Your task to perform on an android device: Search for vegetarian restaurants on Maps Image 0: 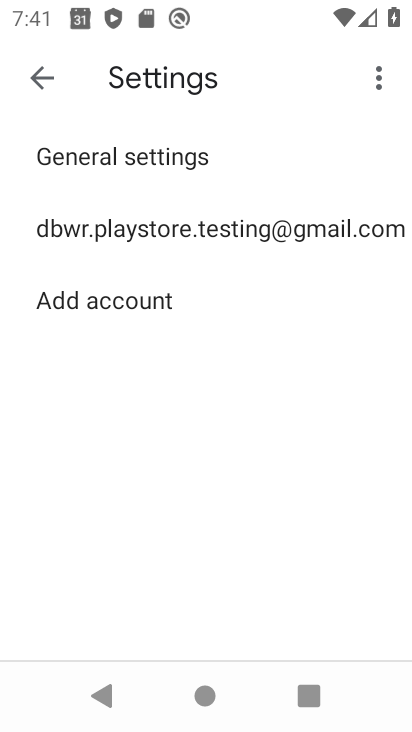
Step 0: press home button
Your task to perform on an android device: Search for vegetarian restaurants on Maps Image 1: 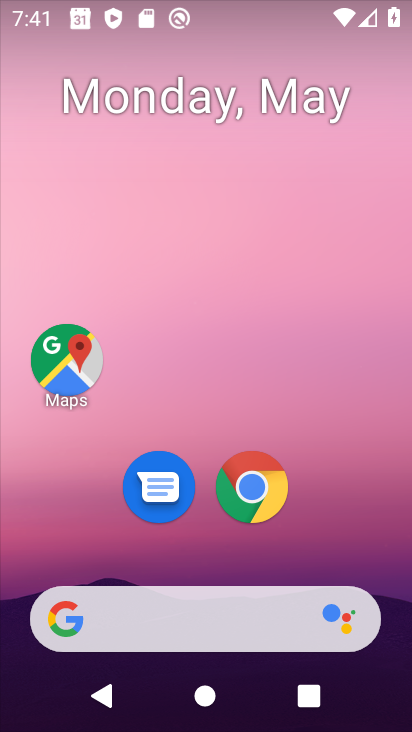
Step 1: drag from (227, 649) to (193, 35)
Your task to perform on an android device: Search for vegetarian restaurants on Maps Image 2: 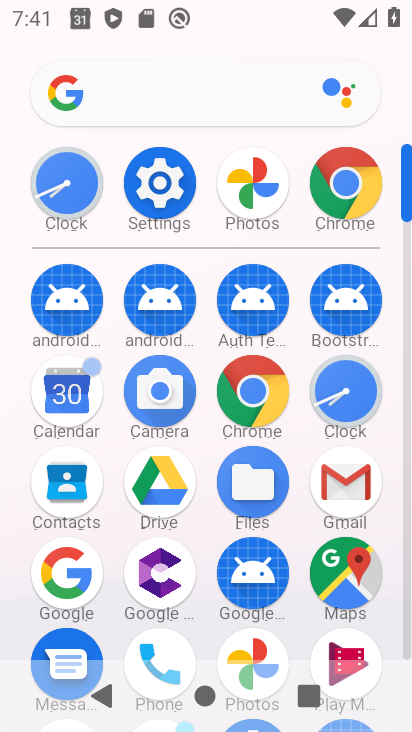
Step 2: click (358, 574)
Your task to perform on an android device: Search for vegetarian restaurants on Maps Image 3: 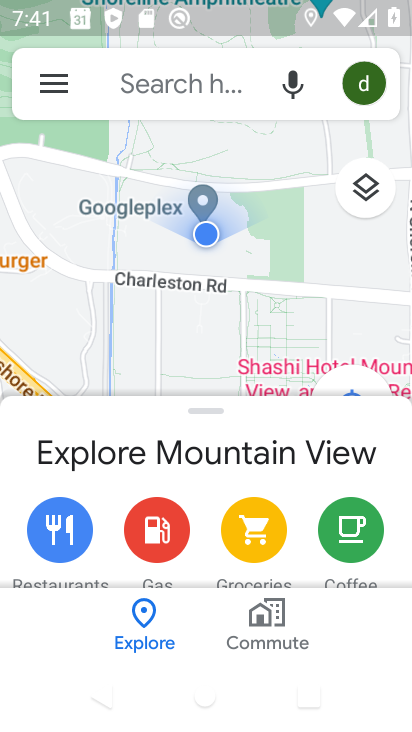
Step 3: click (202, 89)
Your task to perform on an android device: Search for vegetarian restaurants on Maps Image 4: 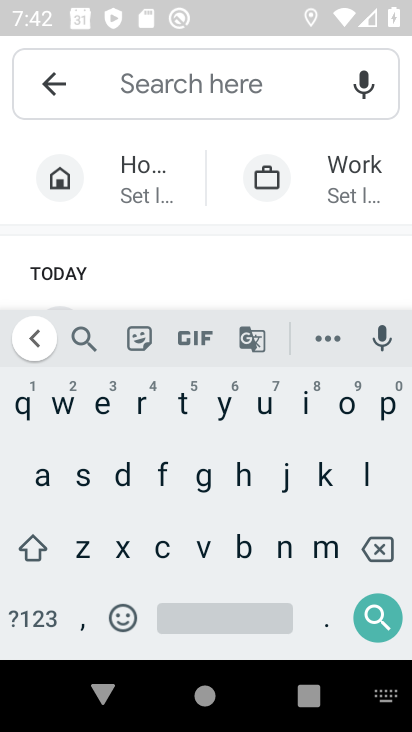
Step 4: click (208, 548)
Your task to perform on an android device: Search for vegetarian restaurants on Maps Image 5: 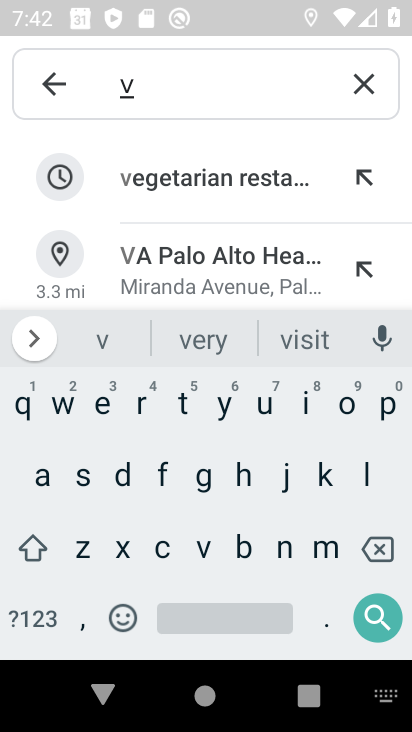
Step 5: click (185, 170)
Your task to perform on an android device: Search for vegetarian restaurants on Maps Image 6: 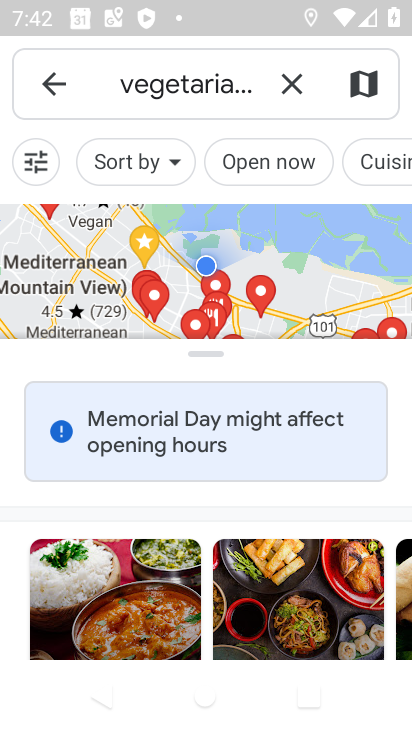
Step 6: task complete